Your task to perform on an android device: change text size in settings app Image 0: 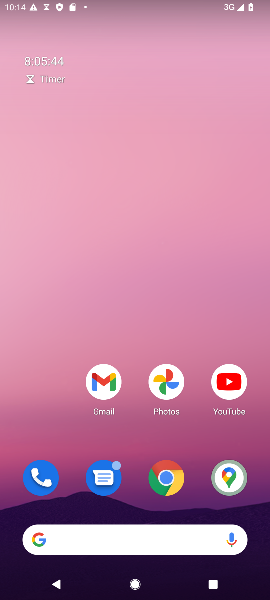
Step 0: drag from (202, 439) to (175, 106)
Your task to perform on an android device: change text size in settings app Image 1: 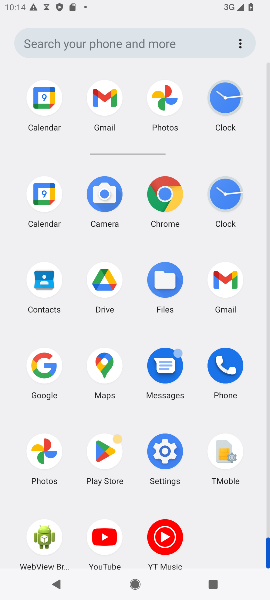
Step 1: click (166, 470)
Your task to perform on an android device: change text size in settings app Image 2: 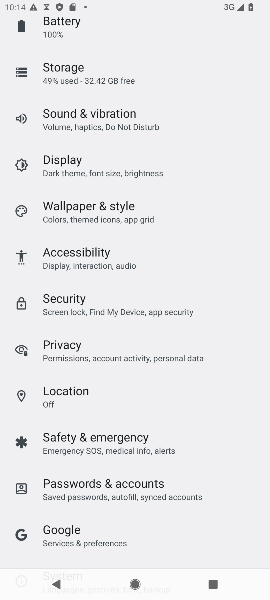
Step 2: click (106, 160)
Your task to perform on an android device: change text size in settings app Image 3: 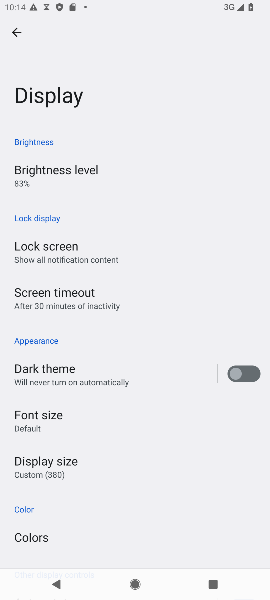
Step 3: click (88, 427)
Your task to perform on an android device: change text size in settings app Image 4: 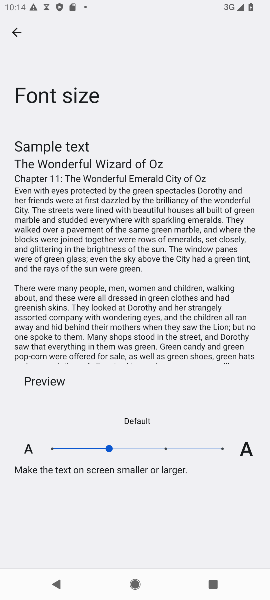
Step 4: click (159, 449)
Your task to perform on an android device: change text size in settings app Image 5: 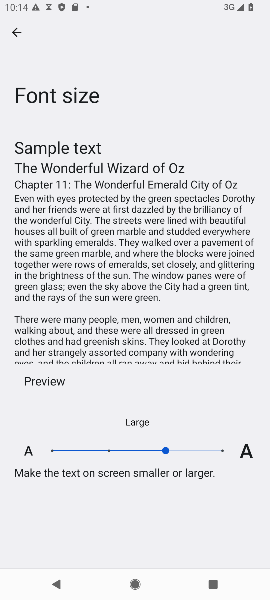
Step 5: task complete